Your task to perform on an android device: Open Android settings Image 0: 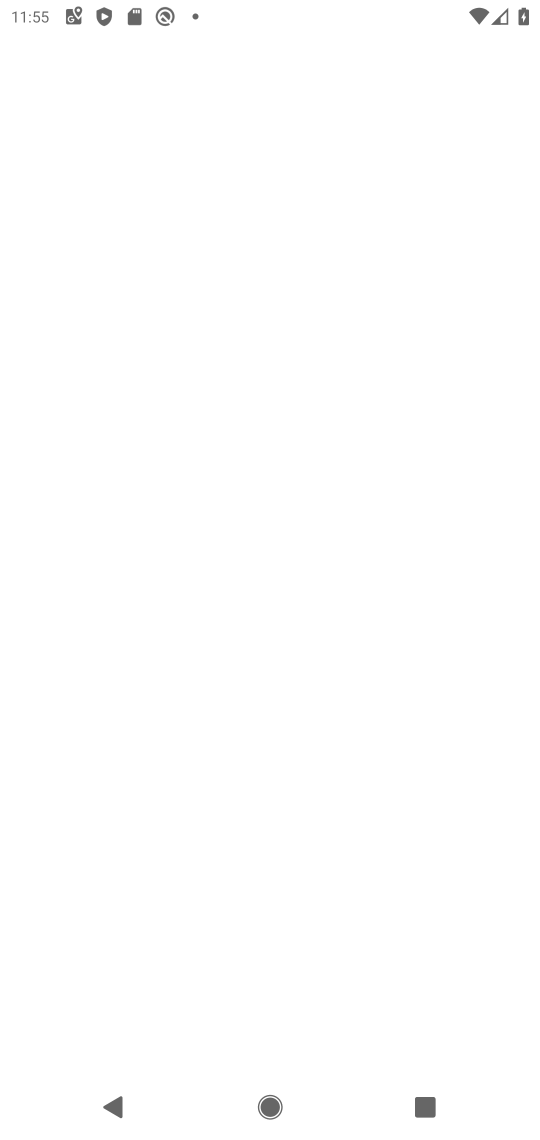
Step 0: press home button
Your task to perform on an android device: Open Android settings Image 1: 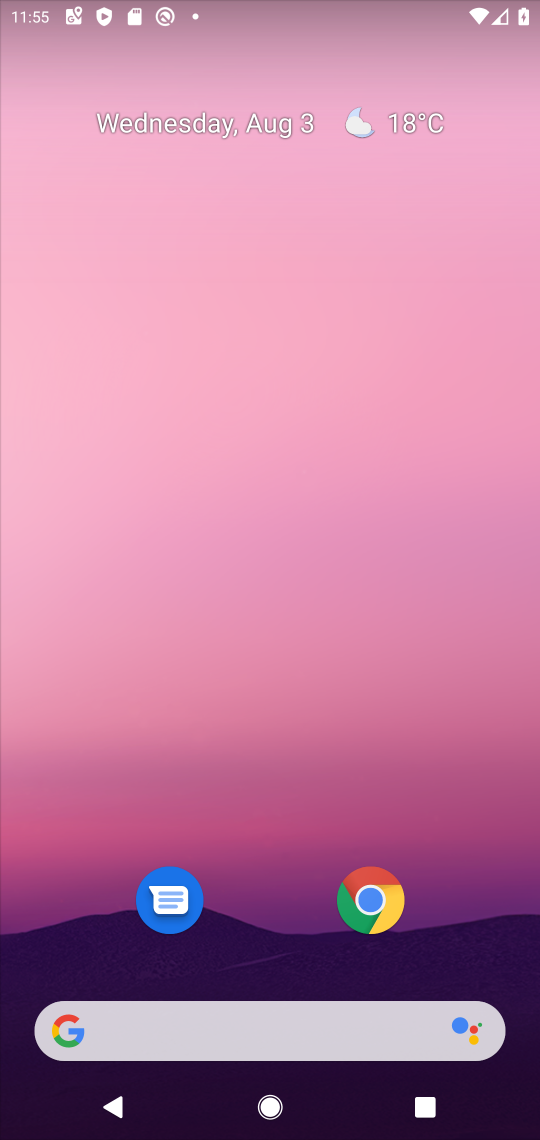
Step 1: drag from (257, 928) to (244, 23)
Your task to perform on an android device: Open Android settings Image 2: 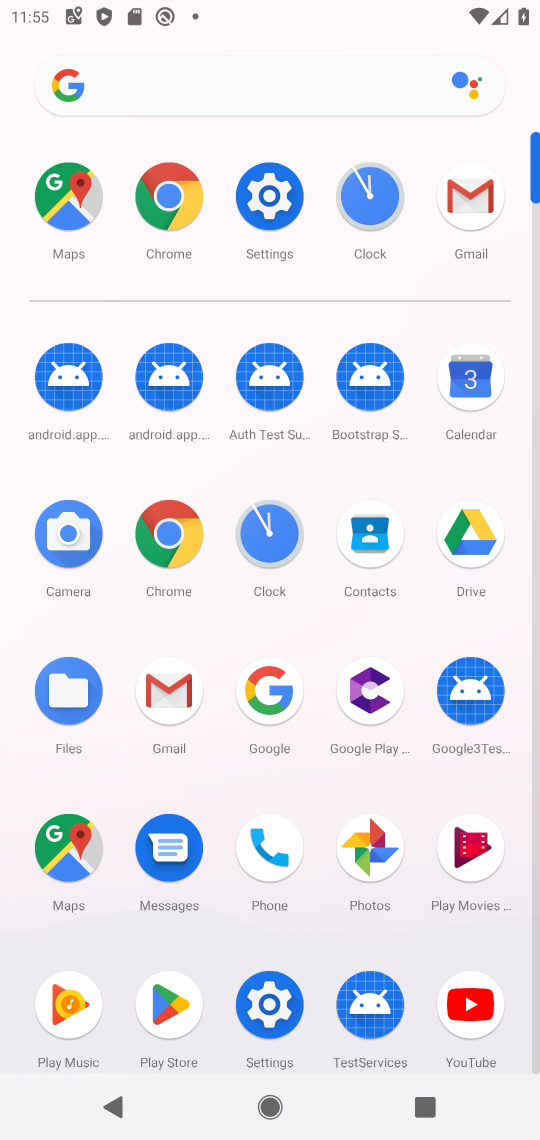
Step 2: click (251, 185)
Your task to perform on an android device: Open Android settings Image 3: 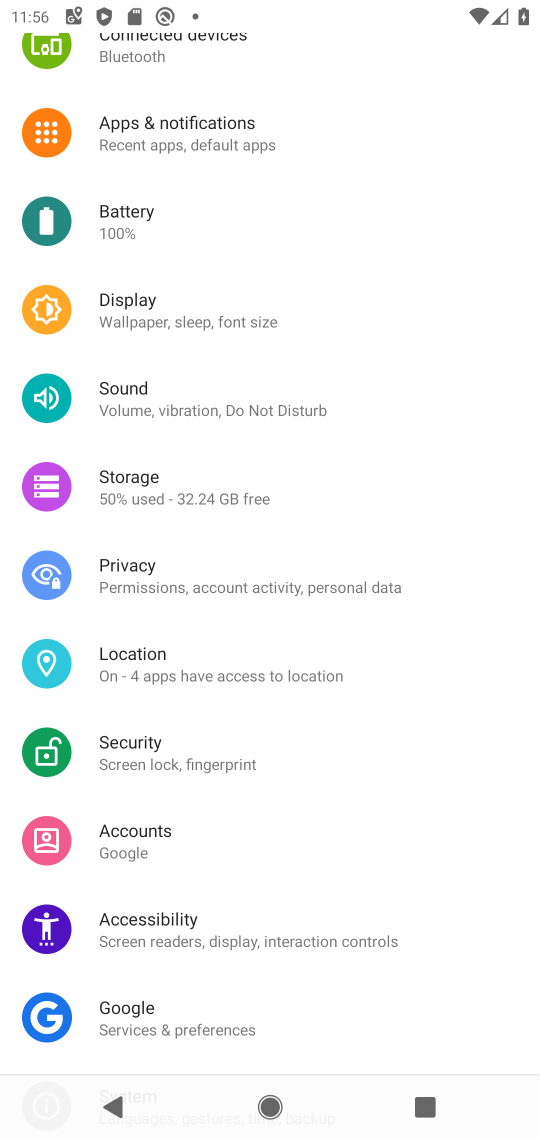
Step 3: task complete